Your task to perform on an android device: read, delete, or share a saved page in the chrome app Image 0: 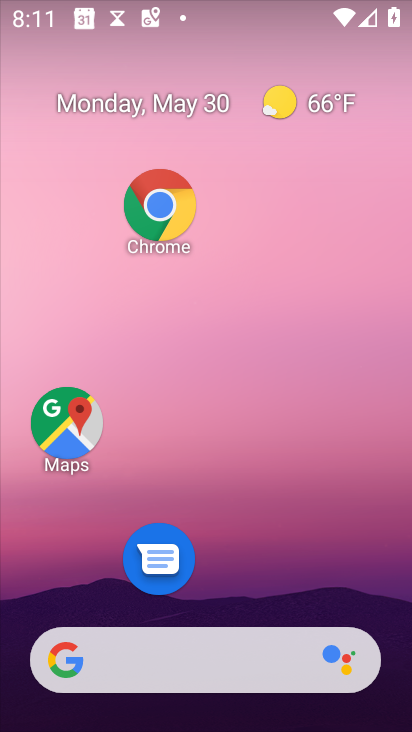
Step 0: drag from (293, 688) to (193, 59)
Your task to perform on an android device: read, delete, or share a saved page in the chrome app Image 1: 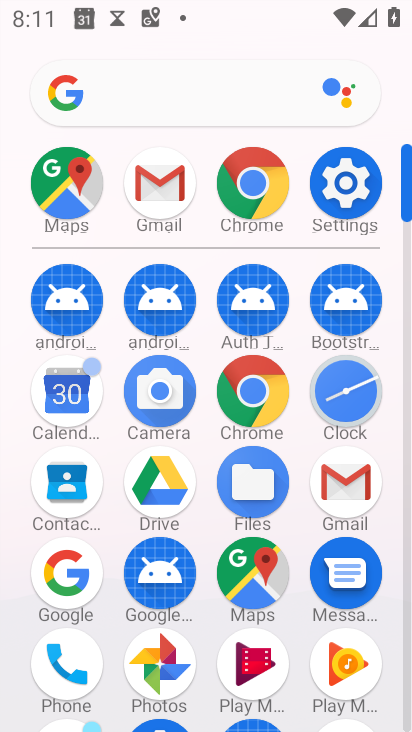
Step 1: click (249, 187)
Your task to perform on an android device: read, delete, or share a saved page in the chrome app Image 2: 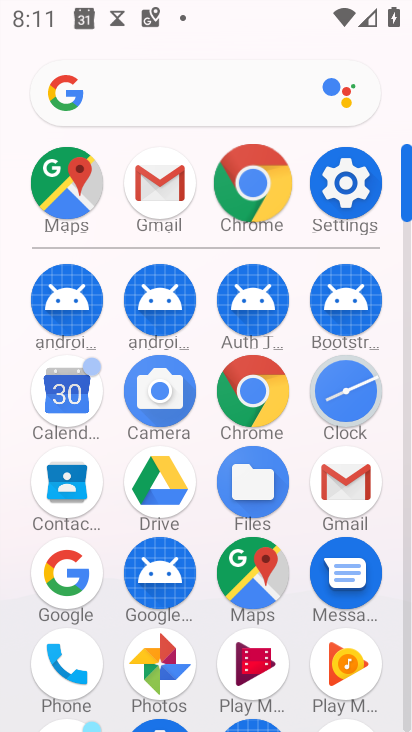
Step 2: click (250, 186)
Your task to perform on an android device: read, delete, or share a saved page in the chrome app Image 3: 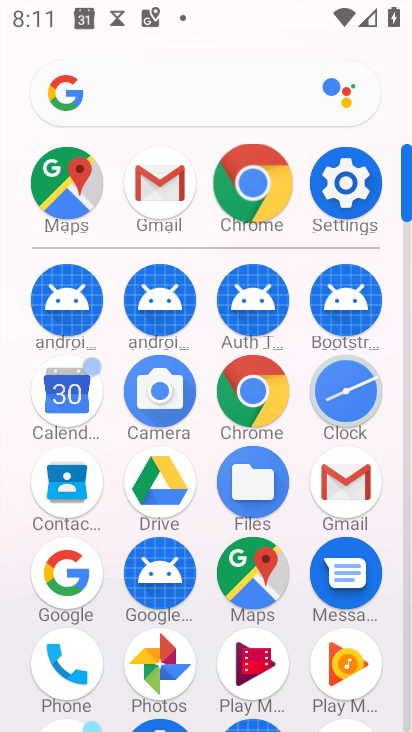
Step 3: click (251, 187)
Your task to perform on an android device: read, delete, or share a saved page in the chrome app Image 4: 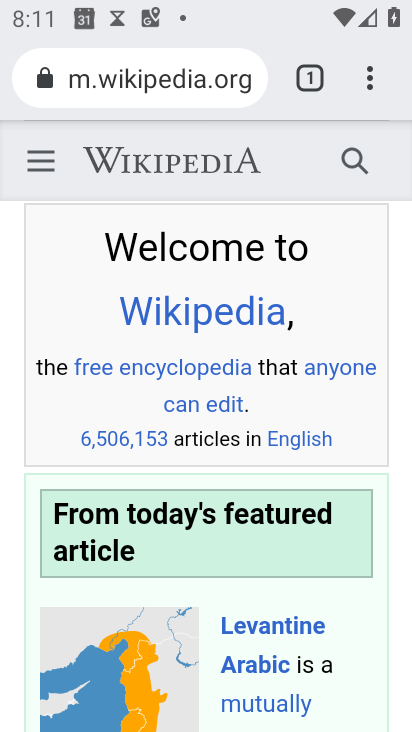
Step 4: click (251, 184)
Your task to perform on an android device: read, delete, or share a saved page in the chrome app Image 5: 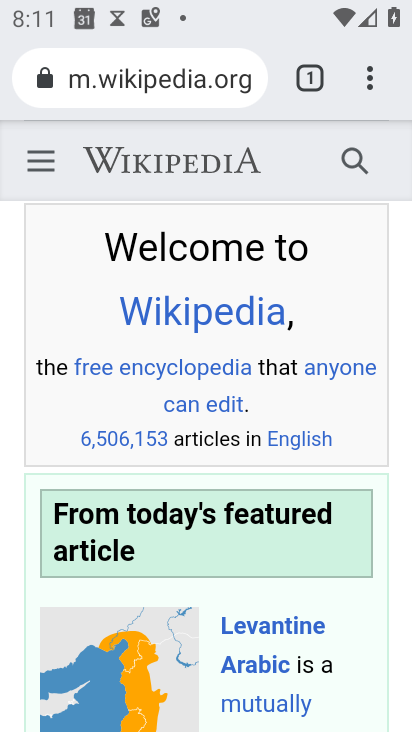
Step 5: press back button
Your task to perform on an android device: read, delete, or share a saved page in the chrome app Image 6: 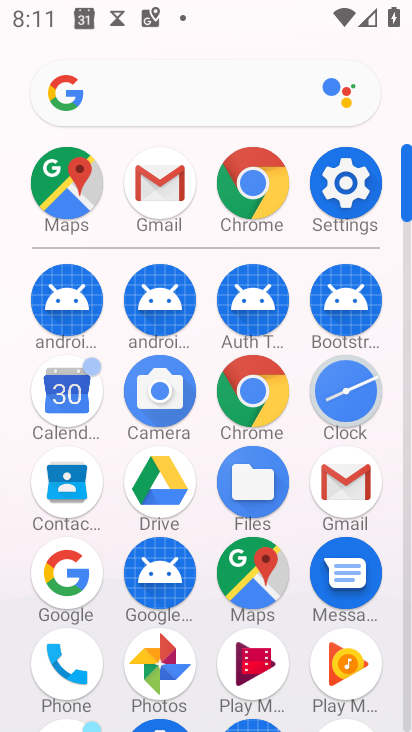
Step 6: click (241, 180)
Your task to perform on an android device: read, delete, or share a saved page in the chrome app Image 7: 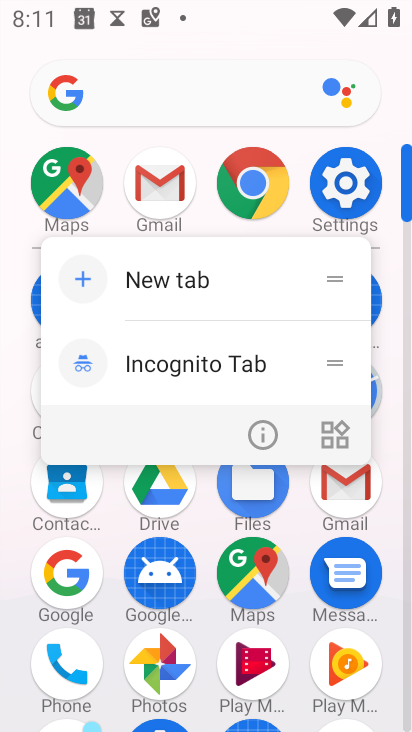
Step 7: click (248, 183)
Your task to perform on an android device: read, delete, or share a saved page in the chrome app Image 8: 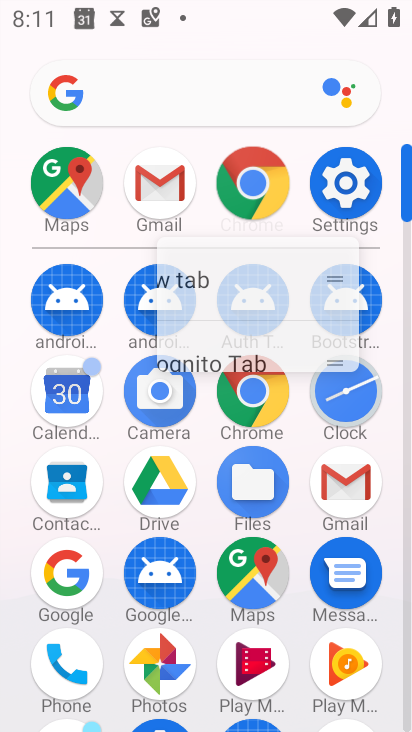
Step 8: click (249, 183)
Your task to perform on an android device: read, delete, or share a saved page in the chrome app Image 9: 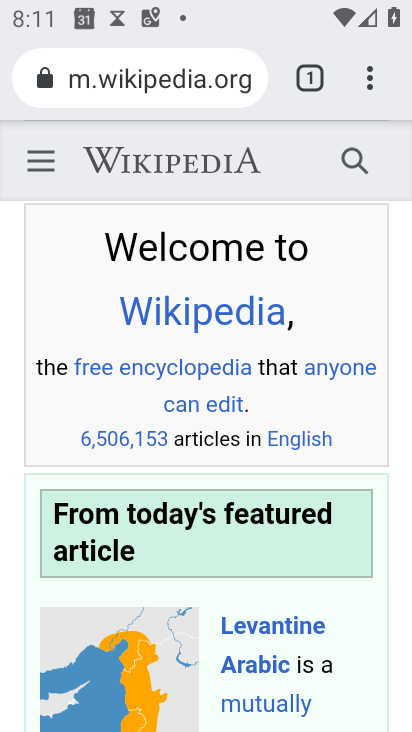
Step 9: click (364, 81)
Your task to perform on an android device: read, delete, or share a saved page in the chrome app Image 10: 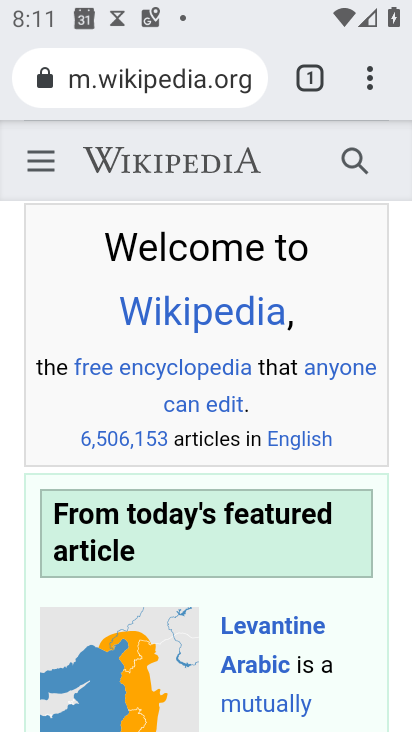
Step 10: click (366, 80)
Your task to perform on an android device: read, delete, or share a saved page in the chrome app Image 11: 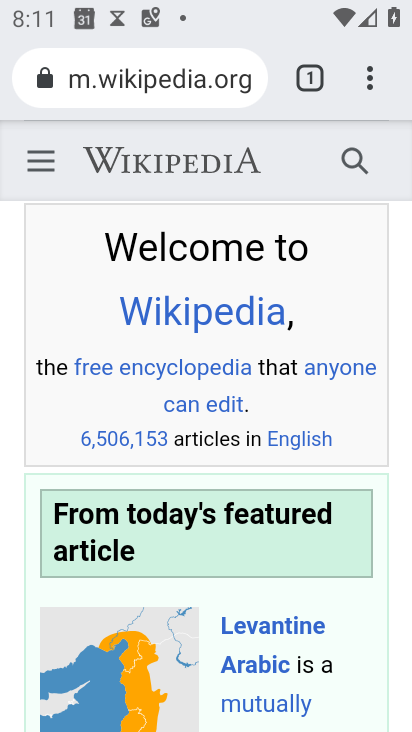
Step 11: drag from (369, 73) to (92, 444)
Your task to perform on an android device: read, delete, or share a saved page in the chrome app Image 12: 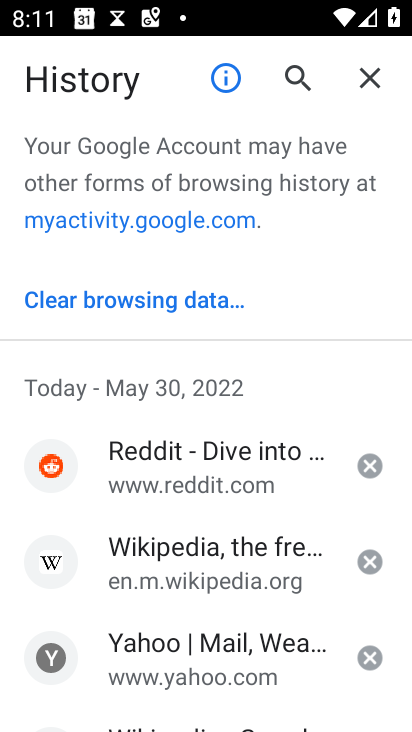
Step 12: press back button
Your task to perform on an android device: read, delete, or share a saved page in the chrome app Image 13: 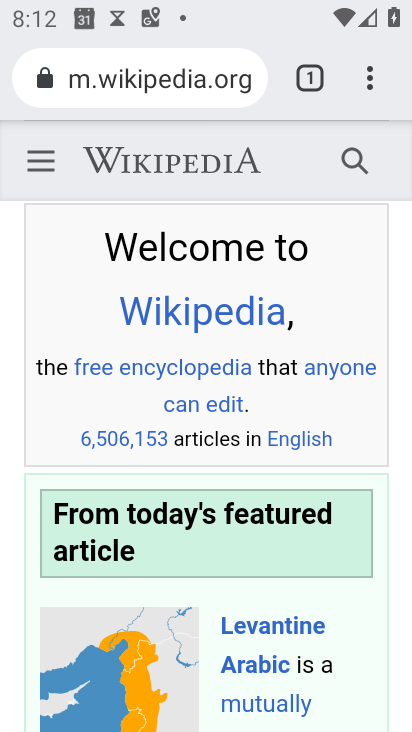
Step 13: drag from (366, 86) to (71, 503)
Your task to perform on an android device: read, delete, or share a saved page in the chrome app Image 14: 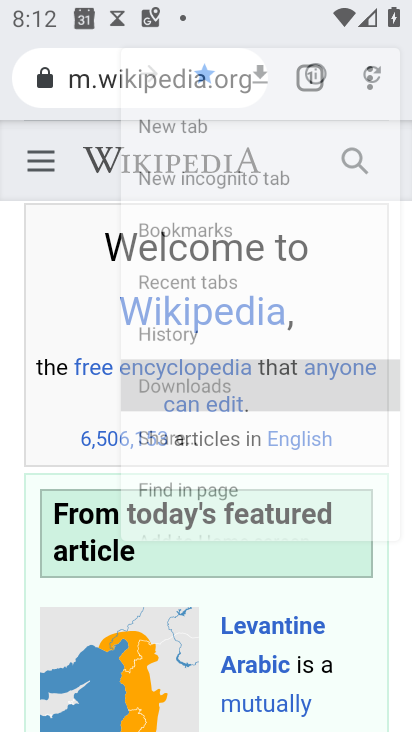
Step 14: click (72, 502)
Your task to perform on an android device: read, delete, or share a saved page in the chrome app Image 15: 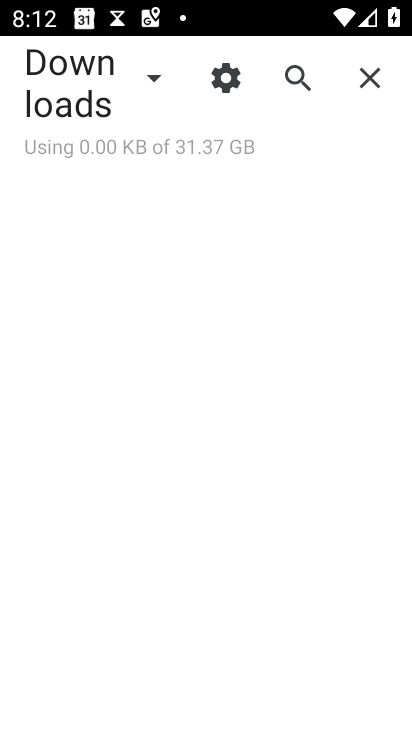
Step 15: click (143, 83)
Your task to perform on an android device: read, delete, or share a saved page in the chrome app Image 16: 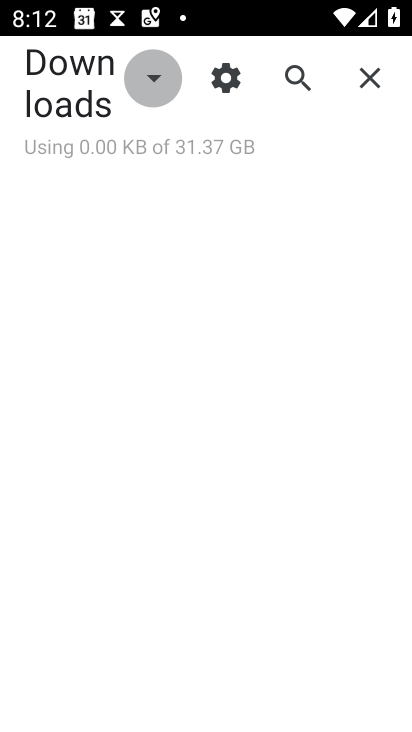
Step 16: click (152, 78)
Your task to perform on an android device: read, delete, or share a saved page in the chrome app Image 17: 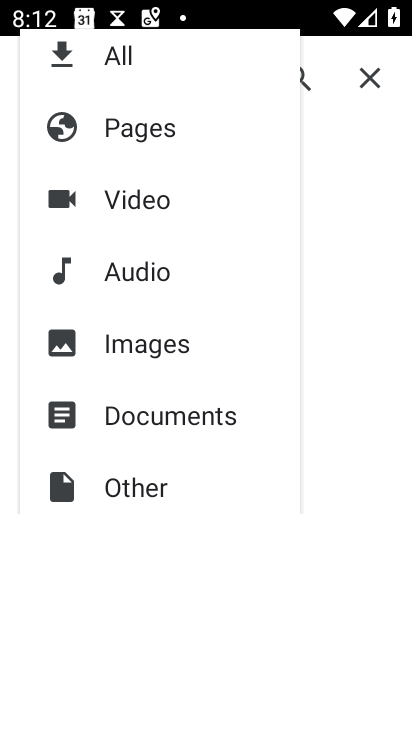
Step 17: click (152, 78)
Your task to perform on an android device: read, delete, or share a saved page in the chrome app Image 18: 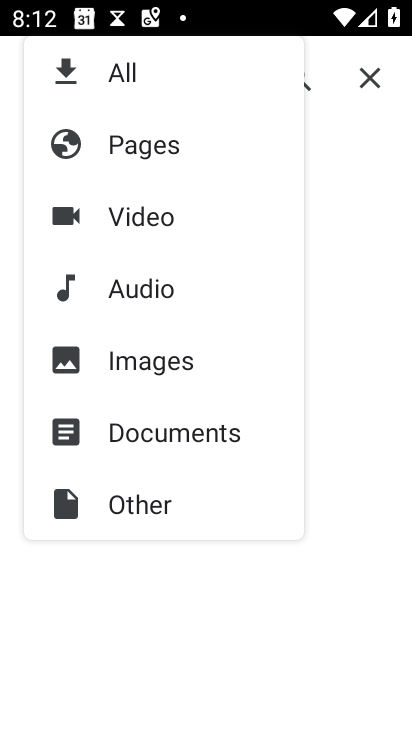
Step 18: click (135, 148)
Your task to perform on an android device: read, delete, or share a saved page in the chrome app Image 19: 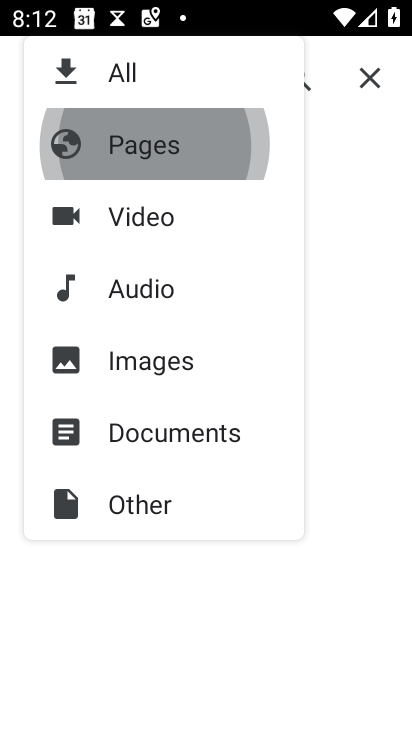
Step 19: click (135, 148)
Your task to perform on an android device: read, delete, or share a saved page in the chrome app Image 20: 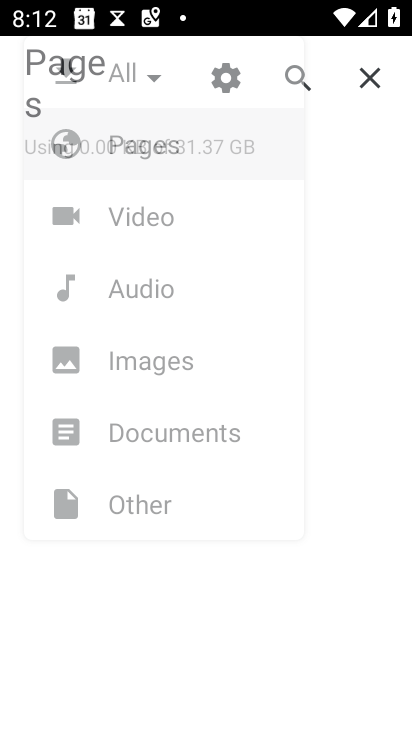
Step 20: click (135, 148)
Your task to perform on an android device: read, delete, or share a saved page in the chrome app Image 21: 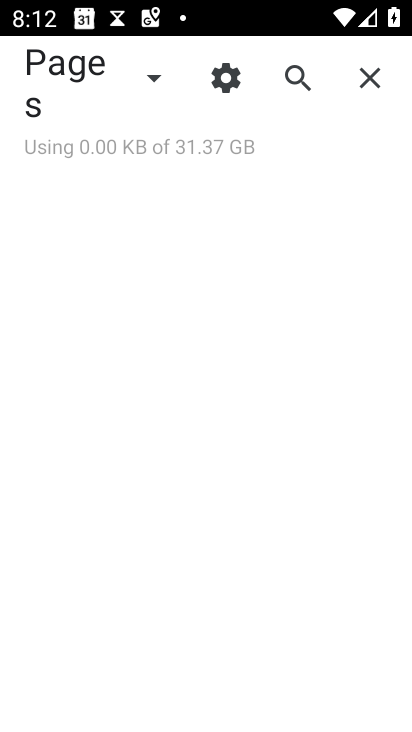
Step 21: click (143, 142)
Your task to perform on an android device: read, delete, or share a saved page in the chrome app Image 22: 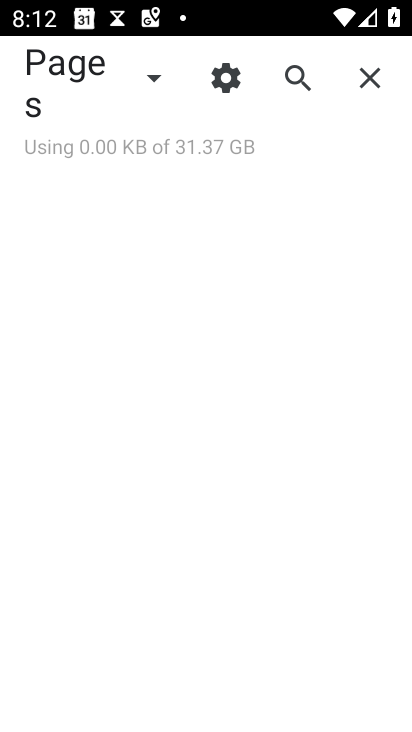
Step 22: task complete